Your task to perform on an android device: Go to network settings Image 0: 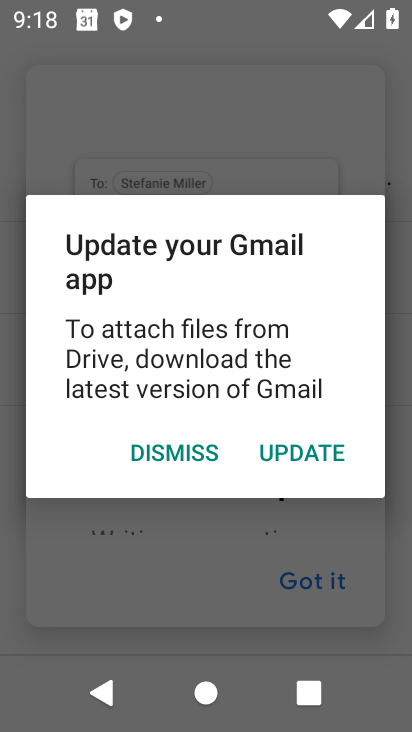
Step 0: press back button
Your task to perform on an android device: Go to network settings Image 1: 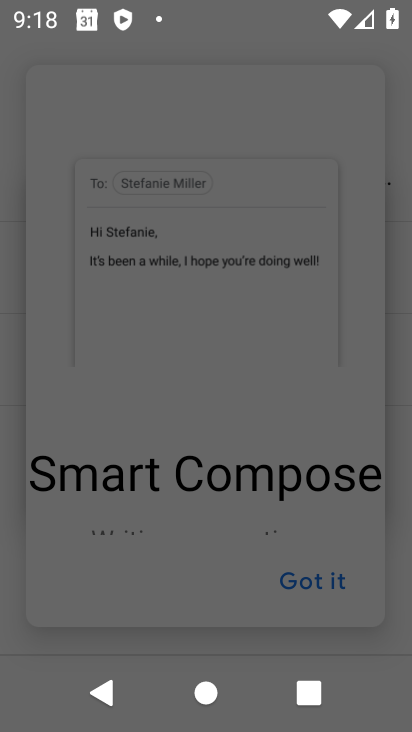
Step 1: press back button
Your task to perform on an android device: Go to network settings Image 2: 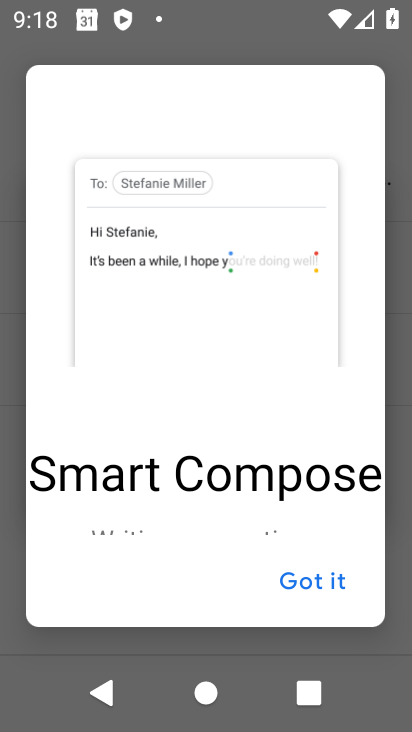
Step 2: press home button
Your task to perform on an android device: Go to network settings Image 3: 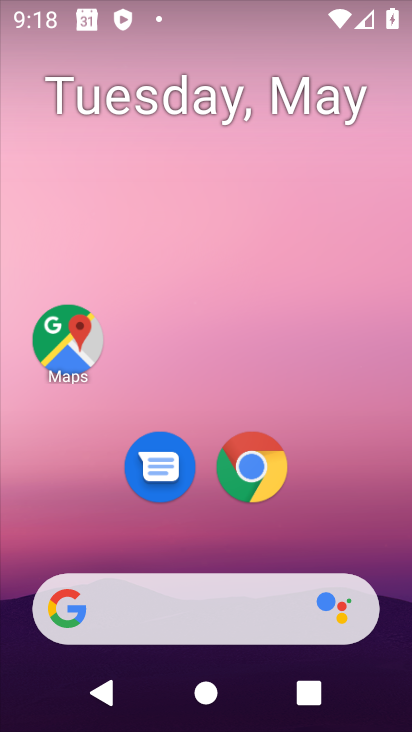
Step 3: drag from (374, 525) to (239, 12)
Your task to perform on an android device: Go to network settings Image 4: 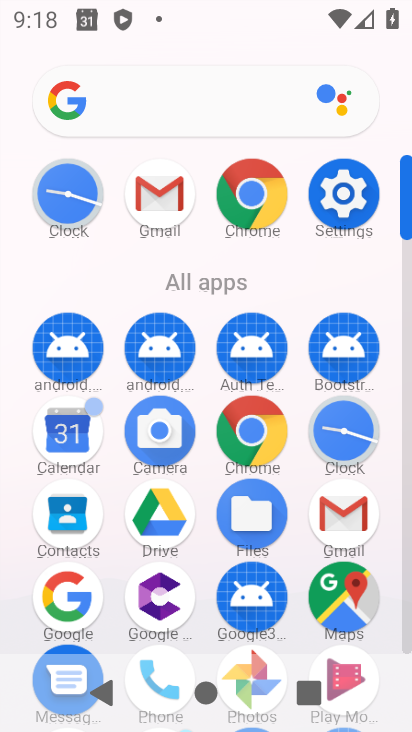
Step 4: click (340, 190)
Your task to perform on an android device: Go to network settings Image 5: 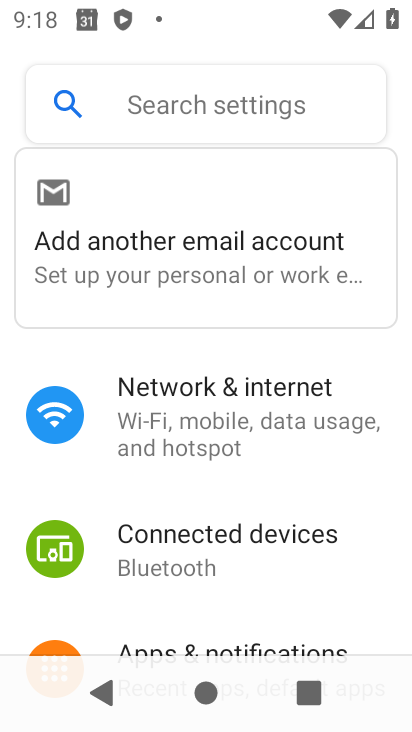
Step 5: click (250, 403)
Your task to perform on an android device: Go to network settings Image 6: 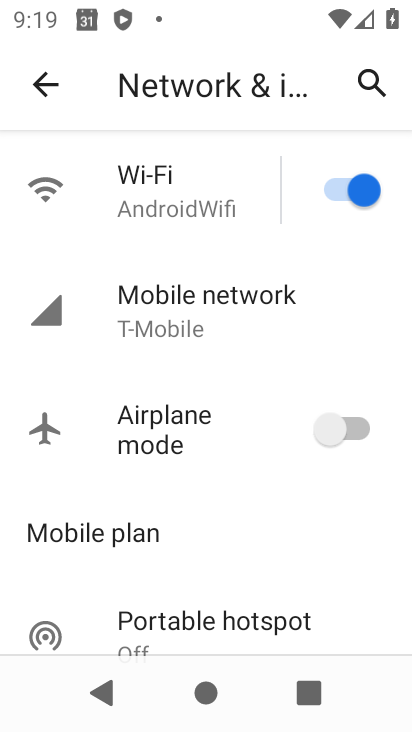
Step 6: drag from (216, 471) to (233, 170)
Your task to perform on an android device: Go to network settings Image 7: 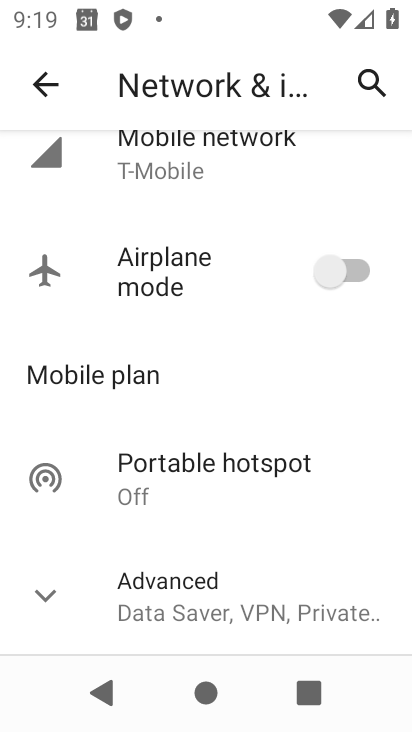
Step 7: drag from (216, 536) to (237, 184)
Your task to perform on an android device: Go to network settings Image 8: 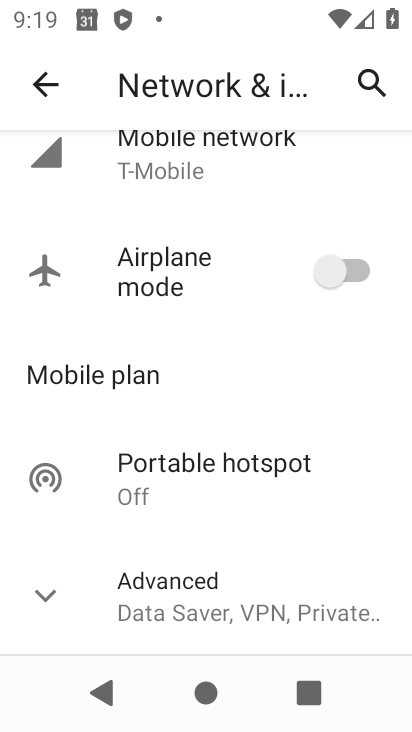
Step 8: click (48, 590)
Your task to perform on an android device: Go to network settings Image 9: 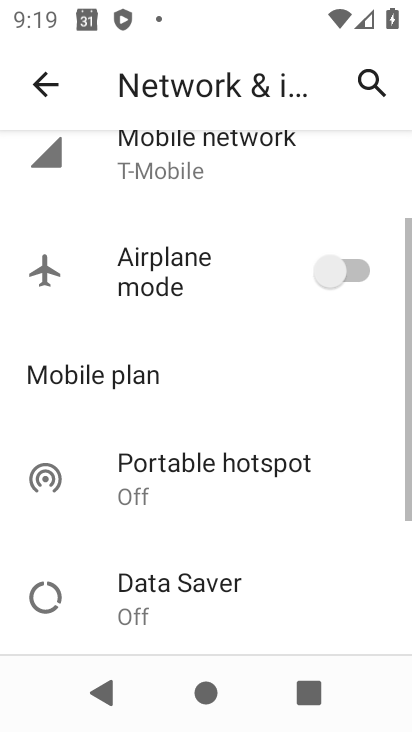
Step 9: task complete